Your task to perform on an android device: What's the news in South Korea? Image 0: 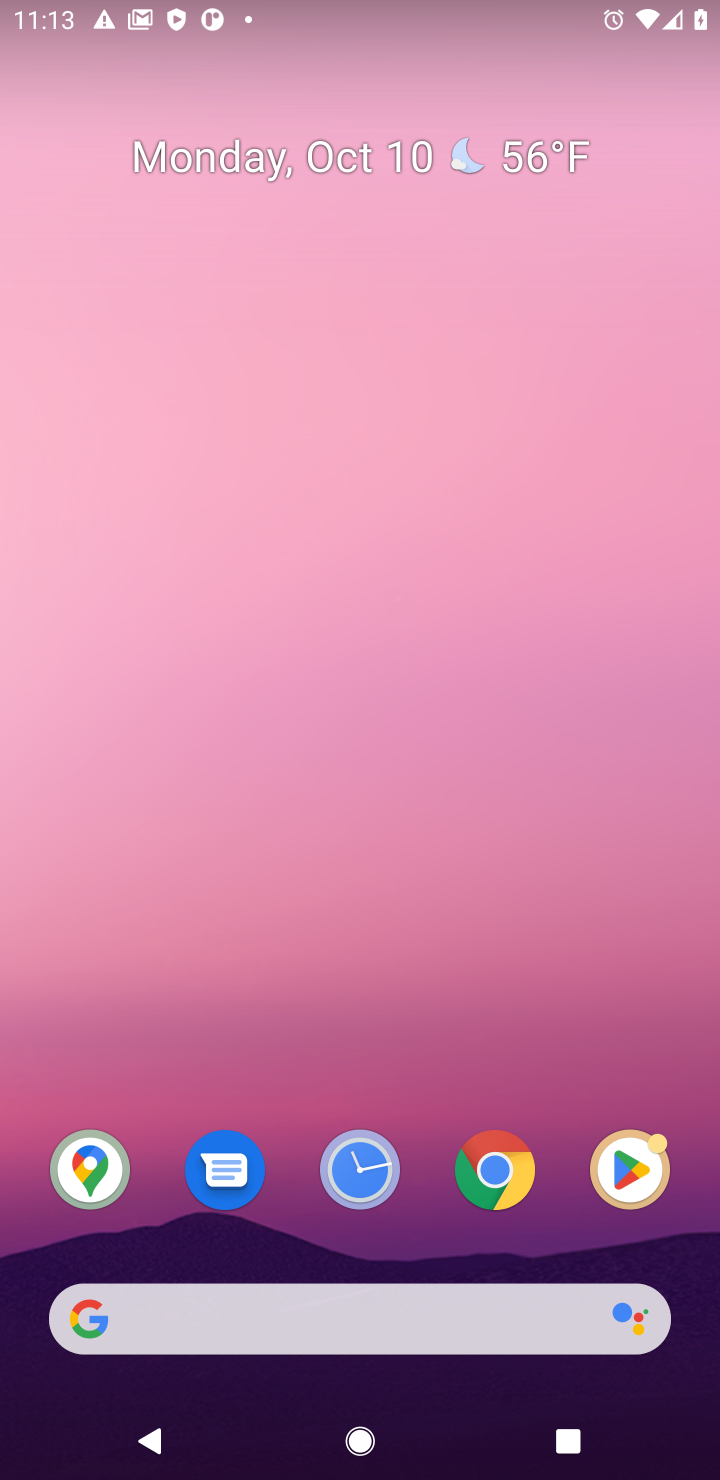
Step 0: drag from (324, 1276) to (455, 421)
Your task to perform on an android device: What's the news in South Korea? Image 1: 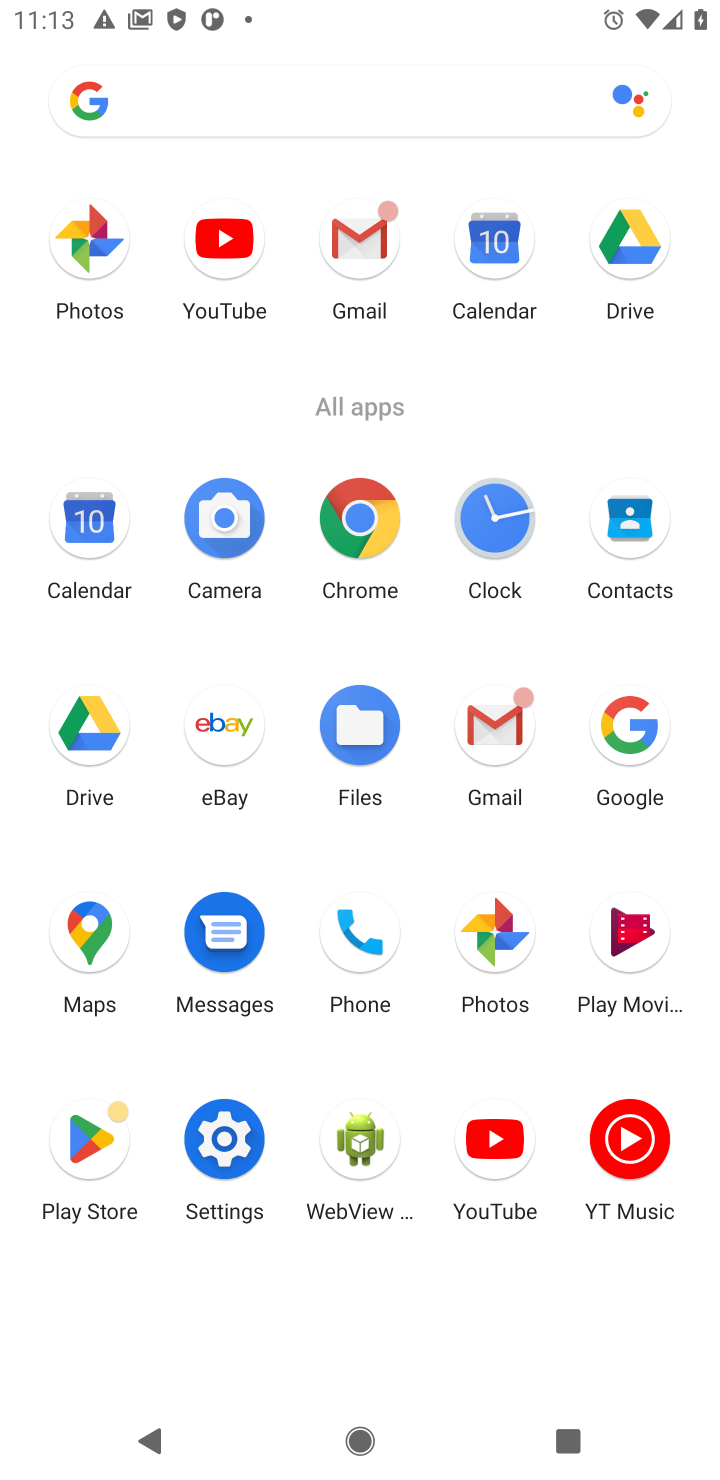
Step 1: click (671, 780)
Your task to perform on an android device: What's the news in South Korea? Image 2: 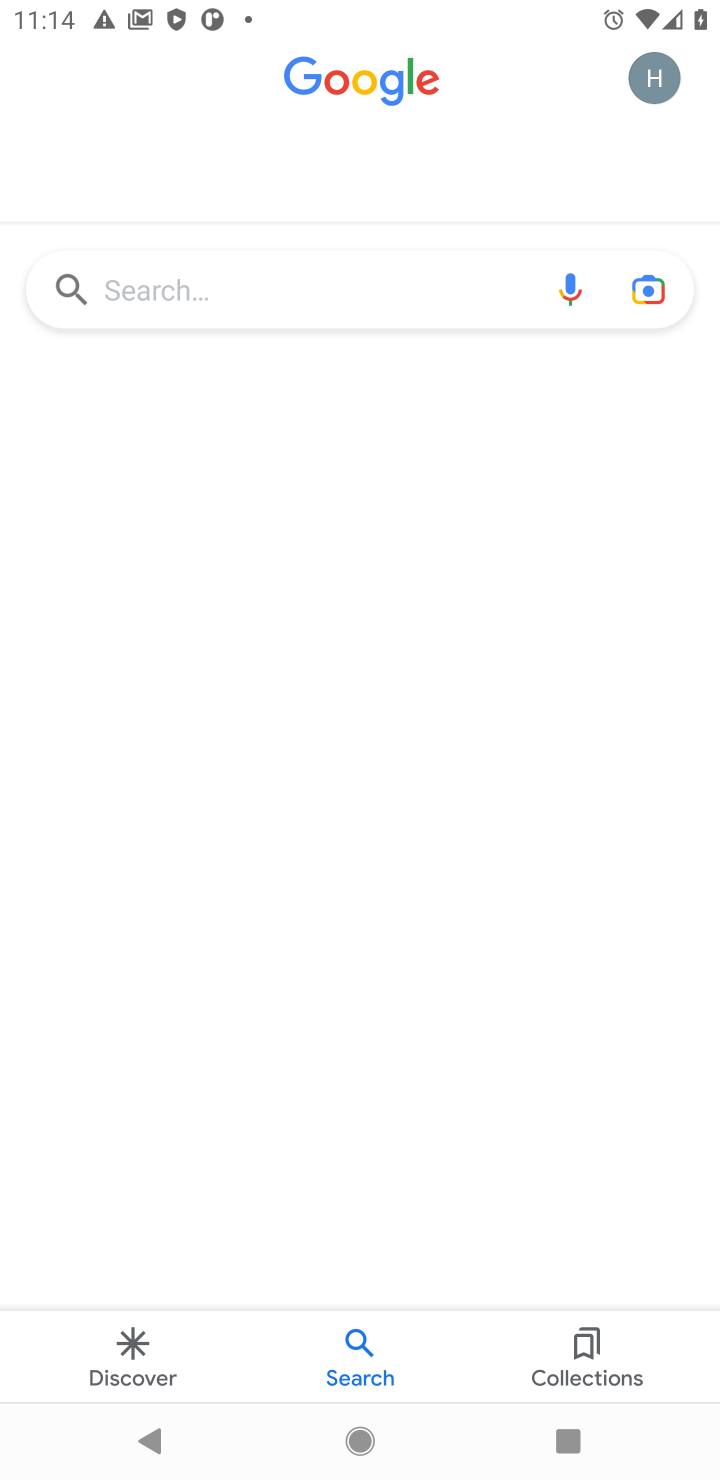
Step 2: click (380, 262)
Your task to perform on an android device: What's the news in South Korea? Image 3: 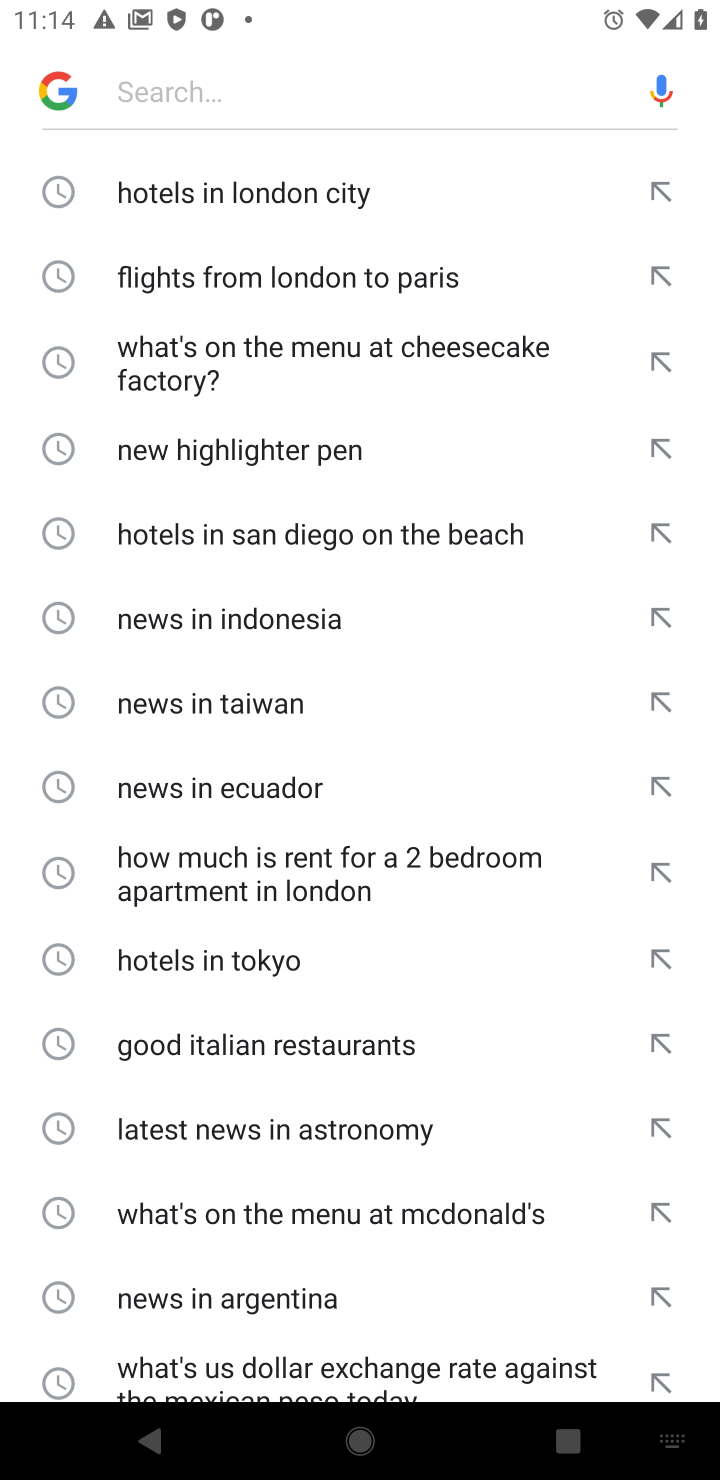
Step 3: type "news in South Korea"
Your task to perform on an android device: What's the news in South Korea? Image 4: 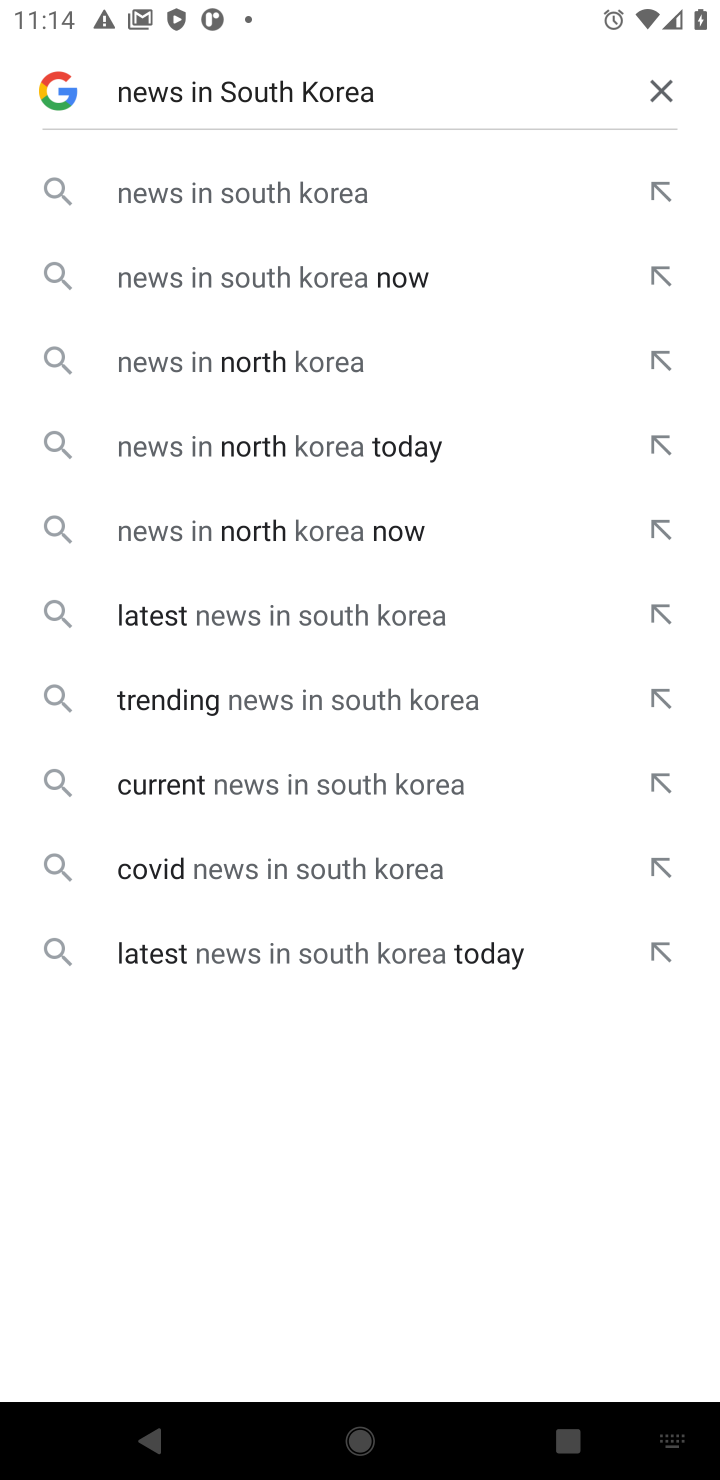
Step 4: click (309, 201)
Your task to perform on an android device: What's the news in South Korea? Image 5: 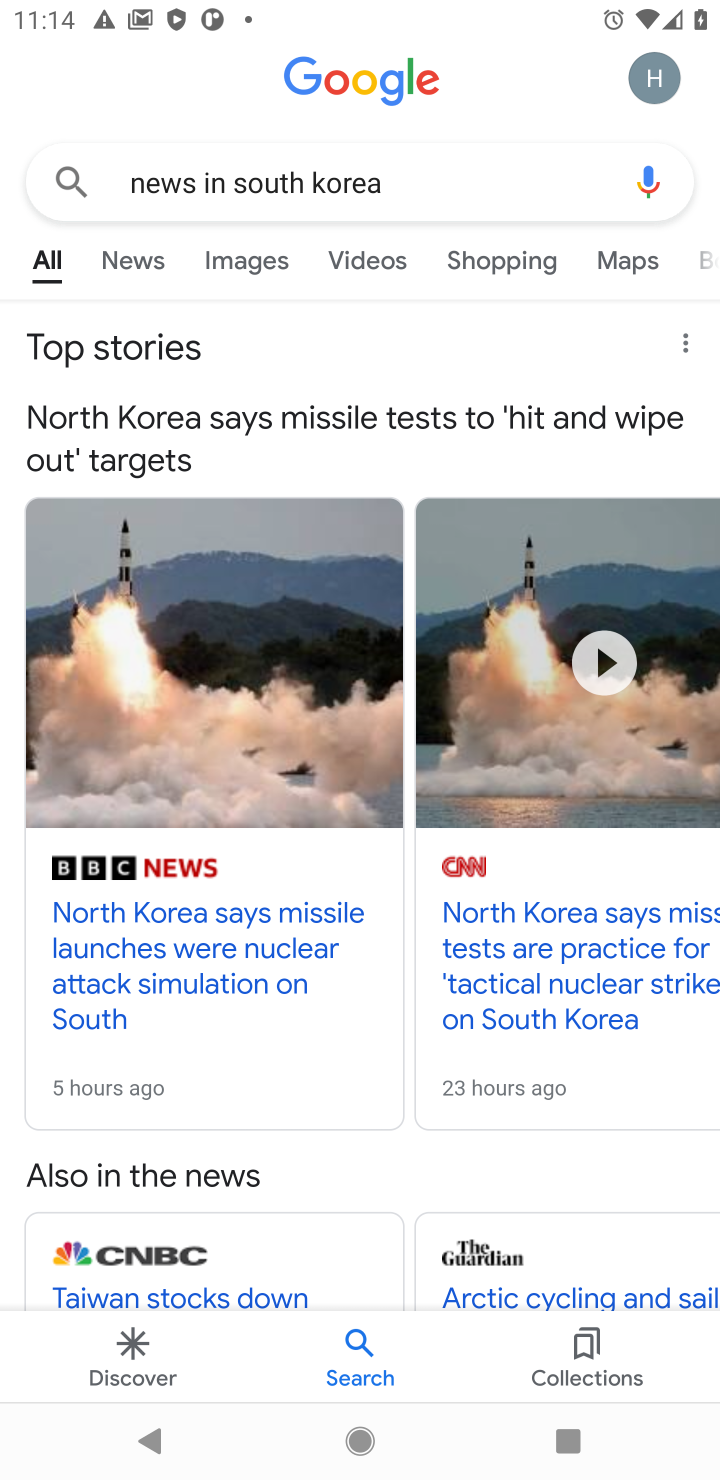
Step 5: click (141, 275)
Your task to perform on an android device: What's the news in South Korea? Image 6: 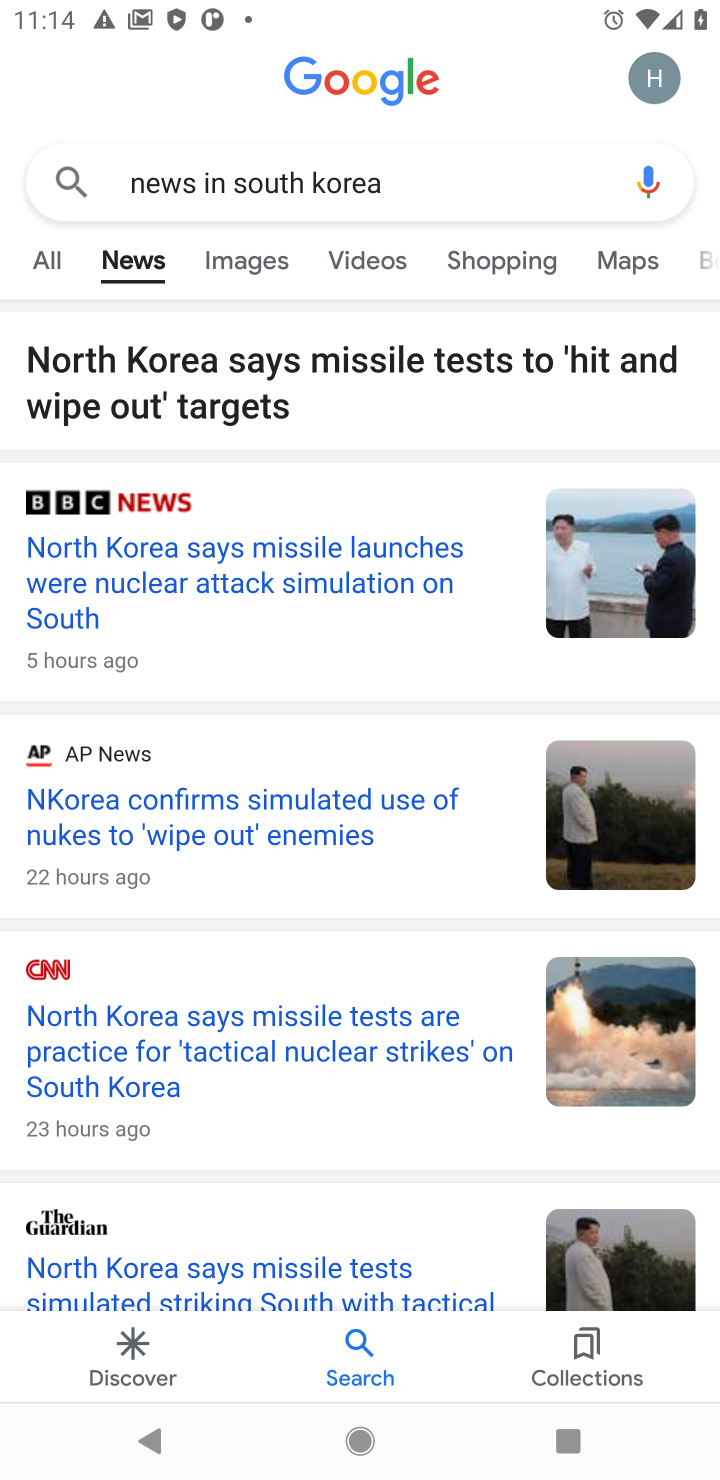
Step 6: task complete